Your task to perform on an android device: change notifications settings Image 0: 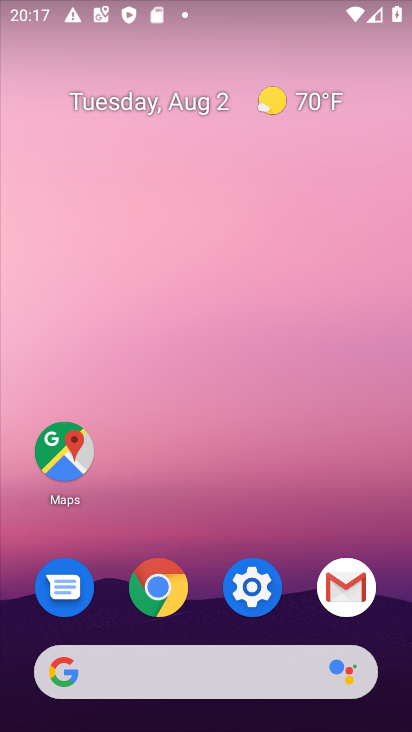
Step 0: click (230, 597)
Your task to perform on an android device: change notifications settings Image 1: 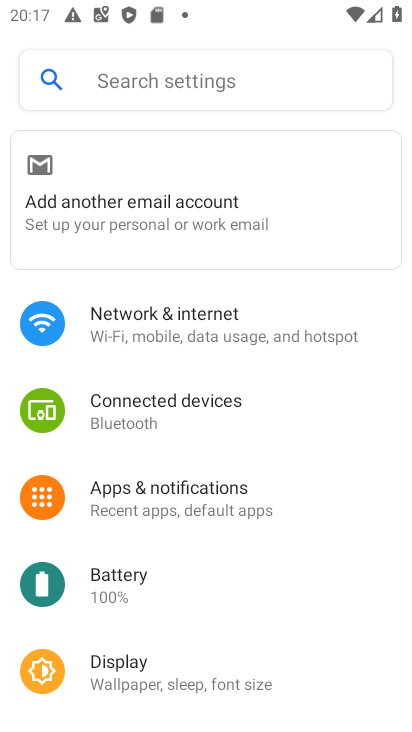
Step 1: click (110, 84)
Your task to perform on an android device: change notifications settings Image 2: 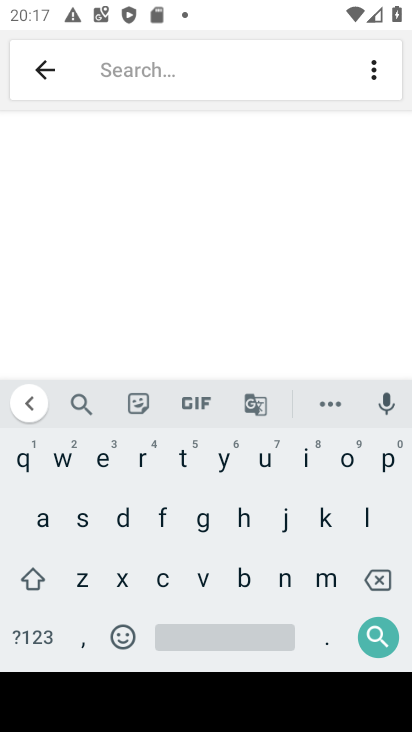
Step 2: click (275, 578)
Your task to perform on an android device: change notifications settings Image 3: 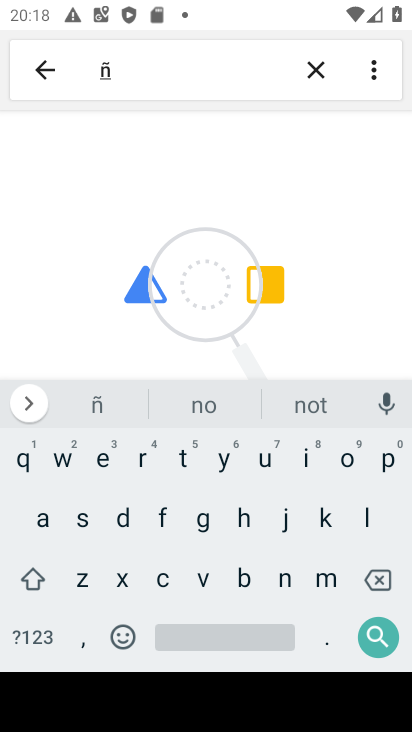
Step 3: click (319, 68)
Your task to perform on an android device: change notifications settings Image 4: 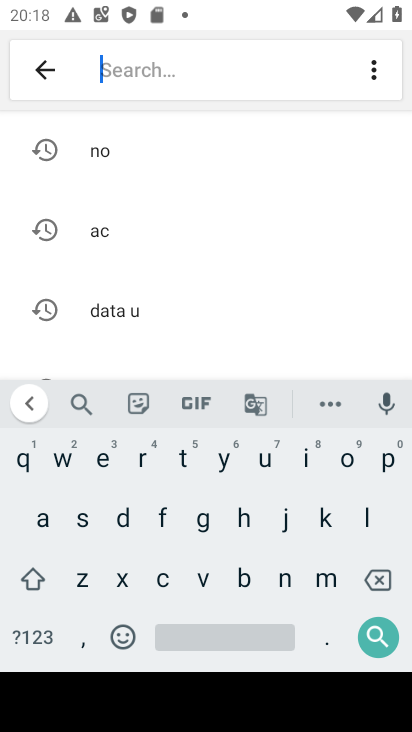
Step 4: click (287, 577)
Your task to perform on an android device: change notifications settings Image 5: 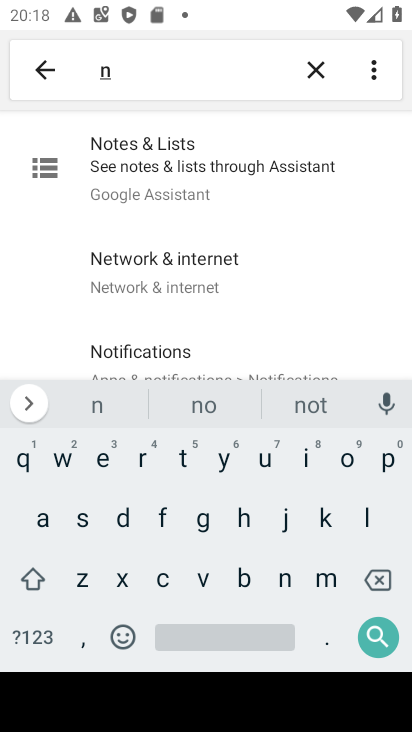
Step 5: click (348, 471)
Your task to perform on an android device: change notifications settings Image 6: 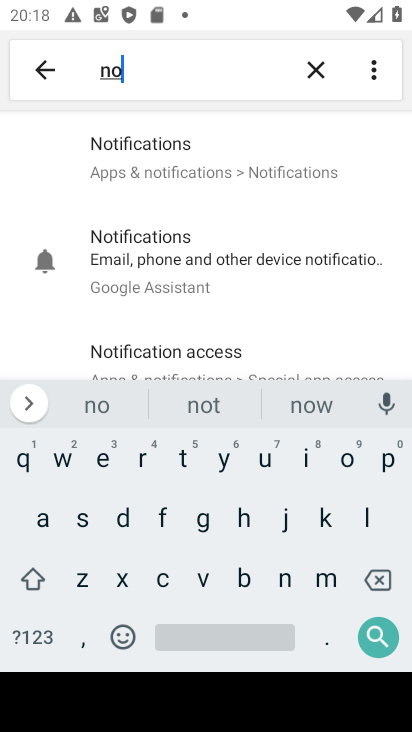
Step 6: click (129, 161)
Your task to perform on an android device: change notifications settings Image 7: 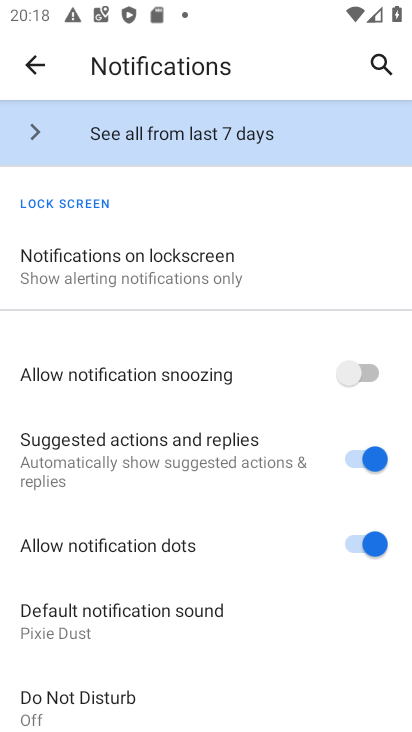
Step 7: click (120, 280)
Your task to perform on an android device: change notifications settings Image 8: 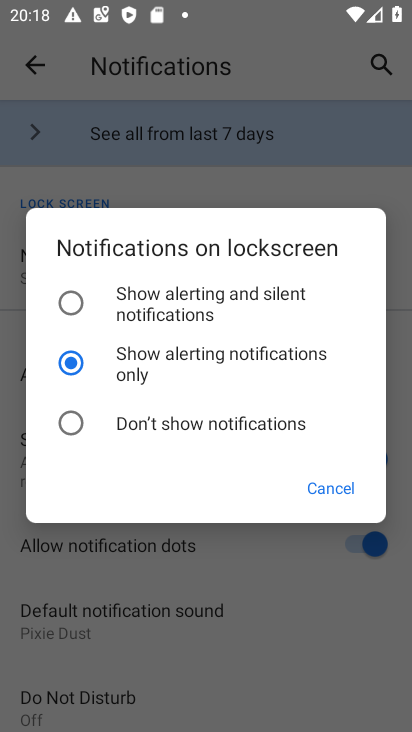
Step 8: click (167, 415)
Your task to perform on an android device: change notifications settings Image 9: 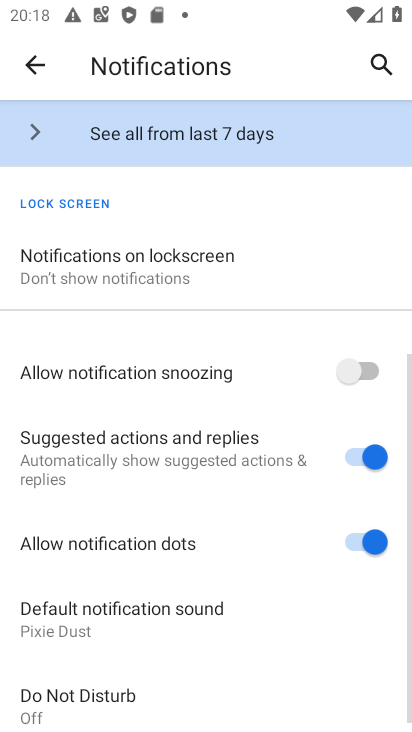
Step 9: click (101, 279)
Your task to perform on an android device: change notifications settings Image 10: 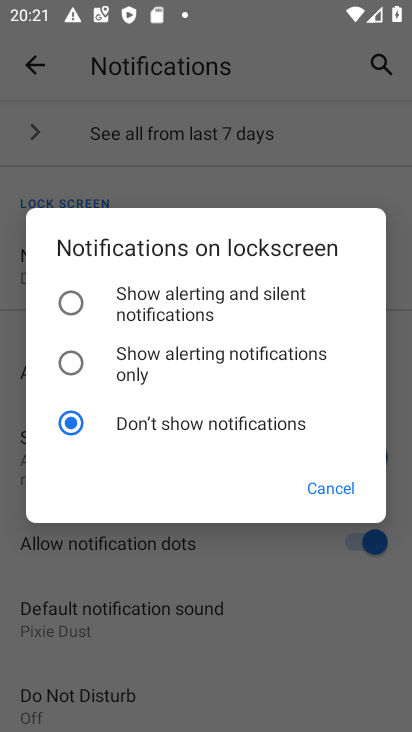
Step 10: task complete